Your task to perform on an android device: toggle translation in the chrome app Image 0: 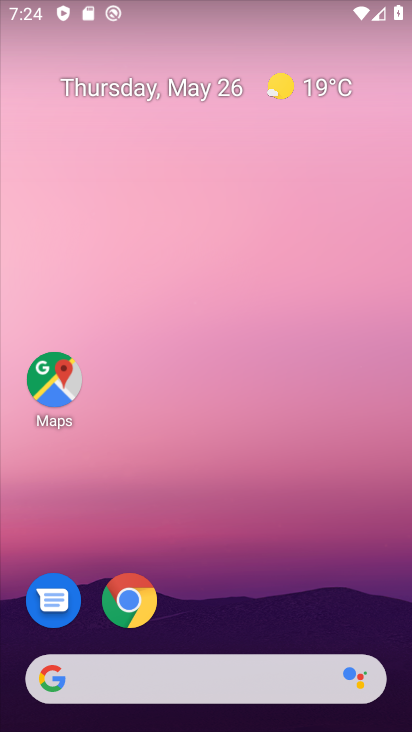
Step 0: drag from (273, 694) to (124, 107)
Your task to perform on an android device: toggle translation in the chrome app Image 1: 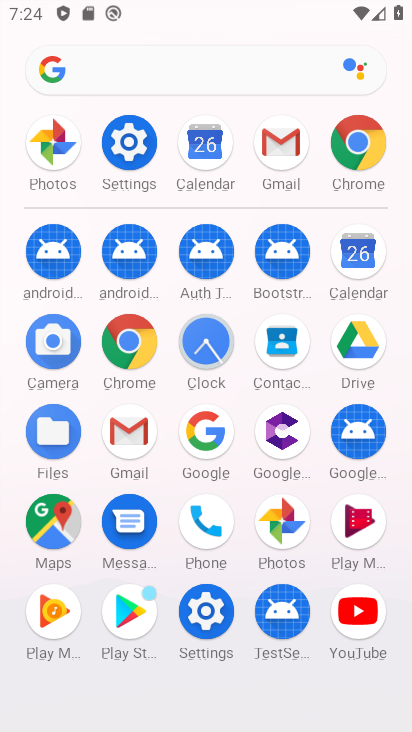
Step 1: click (135, 340)
Your task to perform on an android device: toggle translation in the chrome app Image 2: 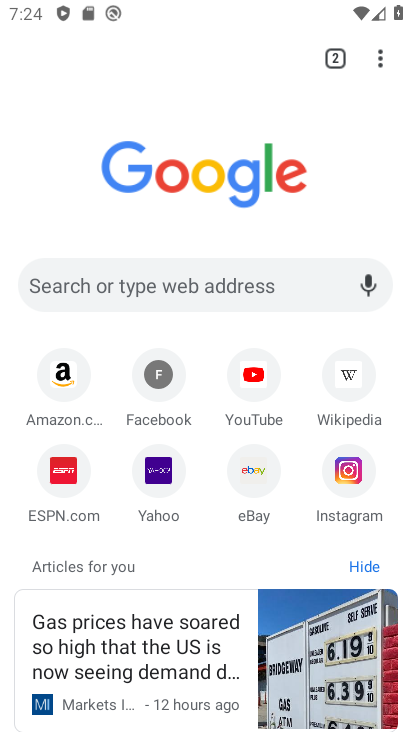
Step 2: click (375, 70)
Your task to perform on an android device: toggle translation in the chrome app Image 3: 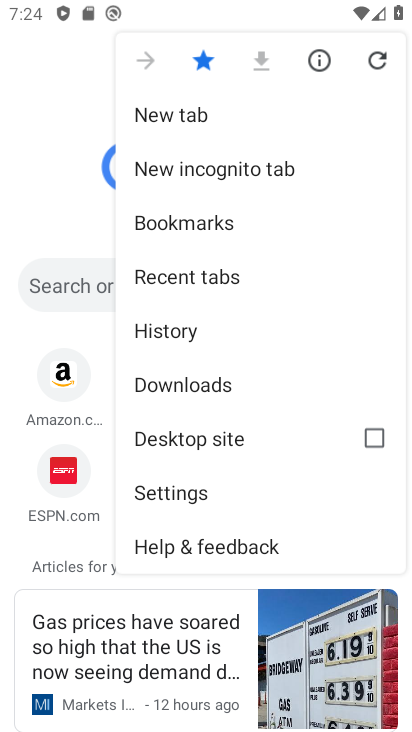
Step 3: click (196, 494)
Your task to perform on an android device: toggle translation in the chrome app Image 4: 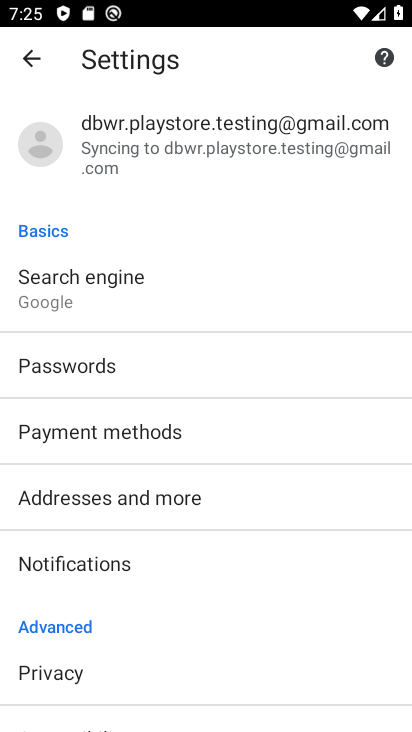
Step 4: drag from (133, 573) to (185, 317)
Your task to perform on an android device: toggle translation in the chrome app Image 5: 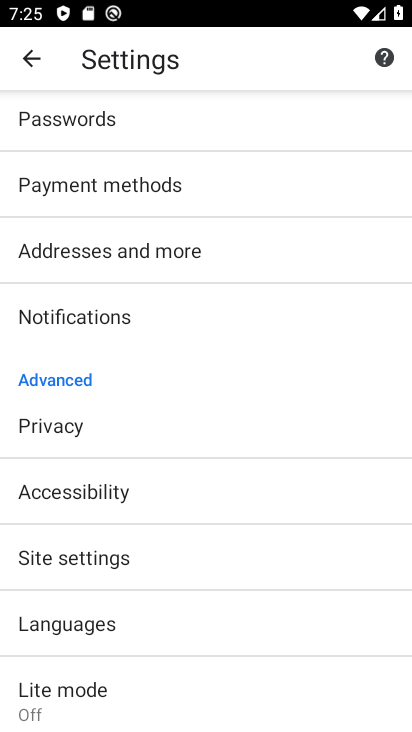
Step 5: click (83, 614)
Your task to perform on an android device: toggle translation in the chrome app Image 6: 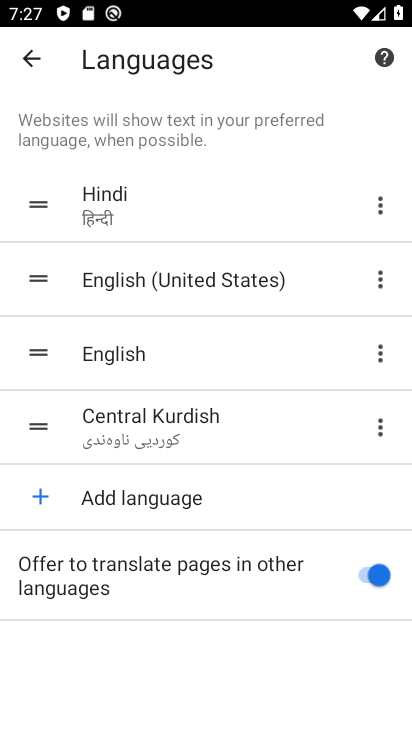
Step 6: task complete